Your task to perform on an android device: uninstall "McDonald's" Image 0: 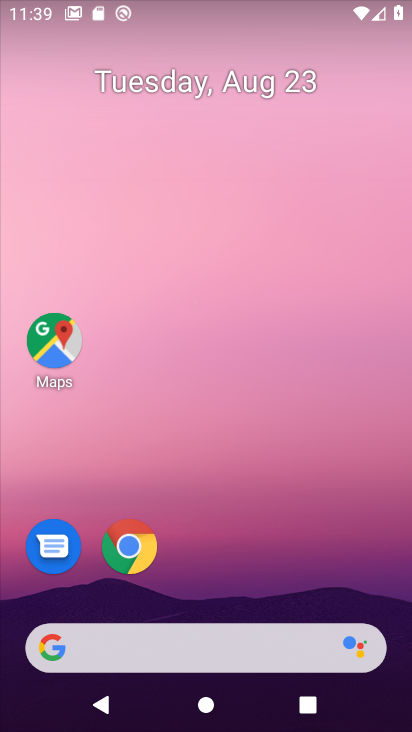
Step 0: drag from (251, 625) to (244, 217)
Your task to perform on an android device: uninstall "McDonald's" Image 1: 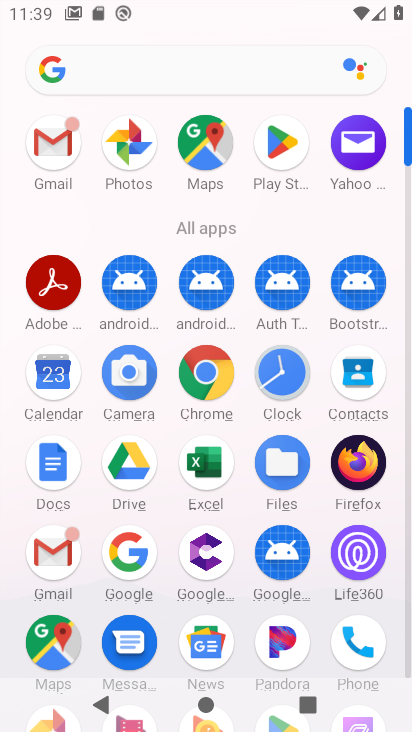
Step 1: click (272, 141)
Your task to perform on an android device: uninstall "McDonald's" Image 2: 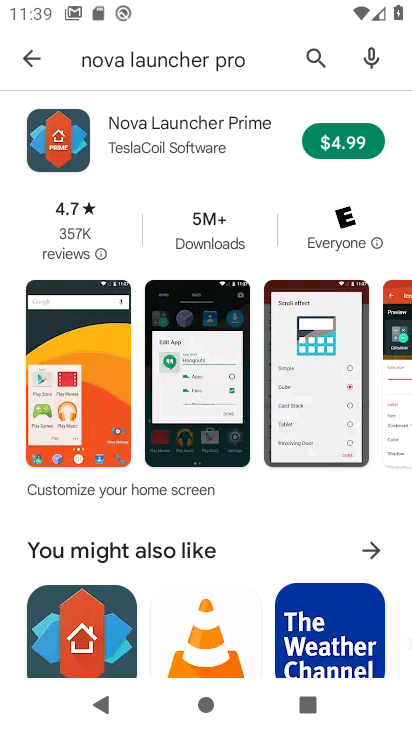
Step 2: click (36, 63)
Your task to perform on an android device: uninstall "McDonald's" Image 3: 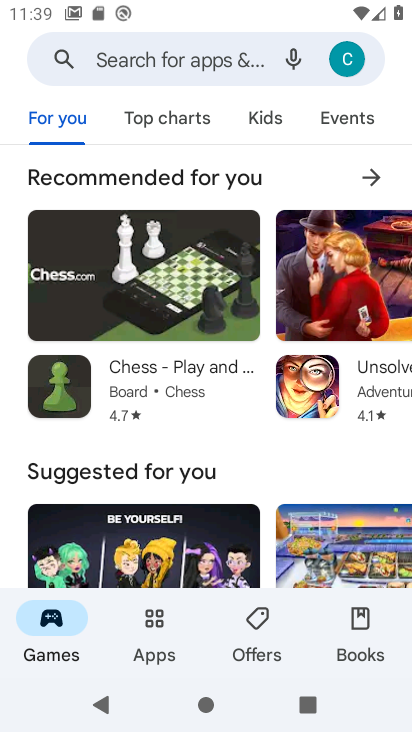
Step 3: click (196, 57)
Your task to perform on an android device: uninstall "McDonald's" Image 4: 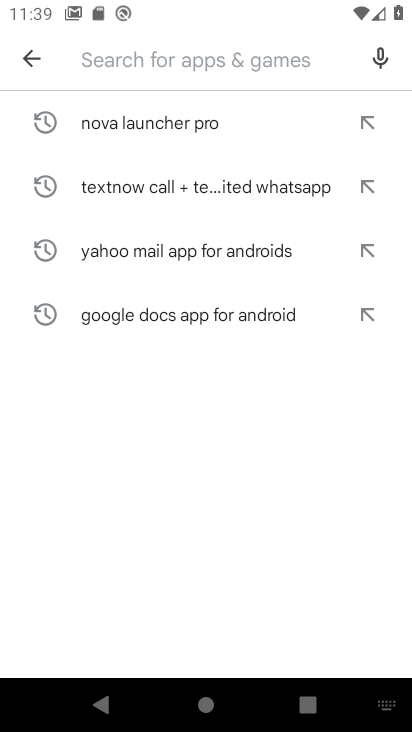
Step 4: type "McDonald's "
Your task to perform on an android device: uninstall "McDonald's" Image 5: 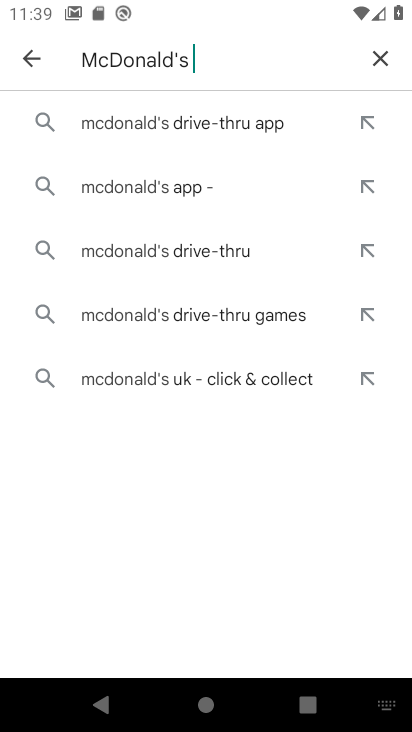
Step 5: click (144, 112)
Your task to perform on an android device: uninstall "McDonald's" Image 6: 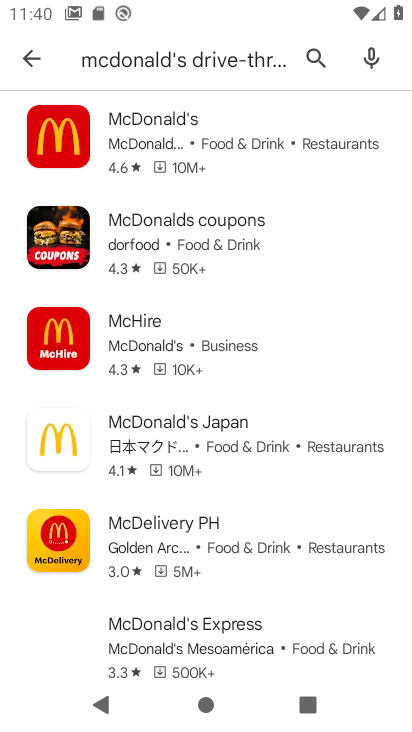
Step 6: click (169, 149)
Your task to perform on an android device: uninstall "McDonald's" Image 7: 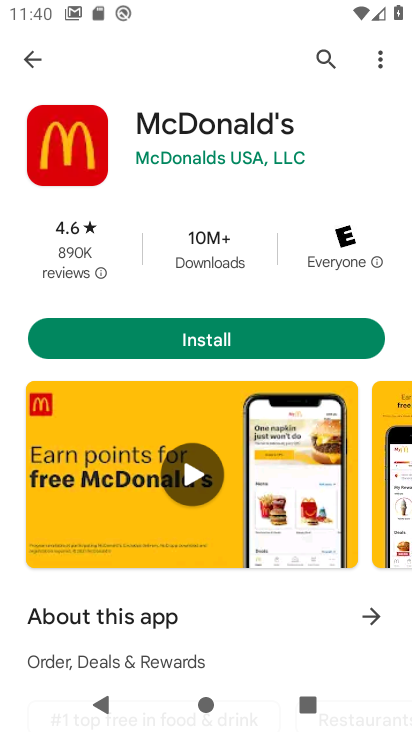
Step 7: click (203, 340)
Your task to perform on an android device: uninstall "McDonald's" Image 8: 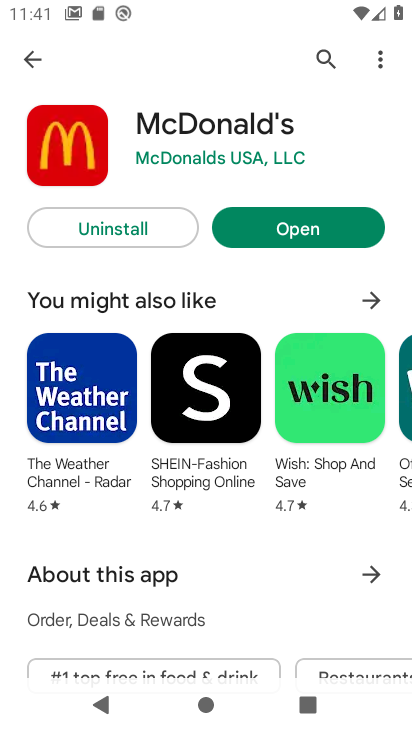
Step 8: click (122, 226)
Your task to perform on an android device: uninstall "McDonald's" Image 9: 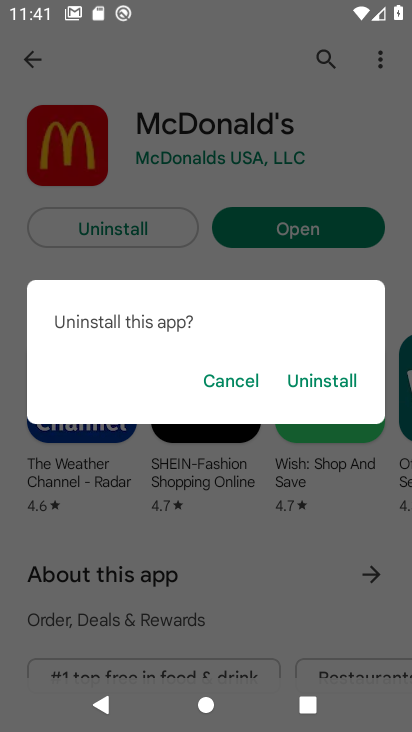
Step 9: click (328, 377)
Your task to perform on an android device: uninstall "McDonald's" Image 10: 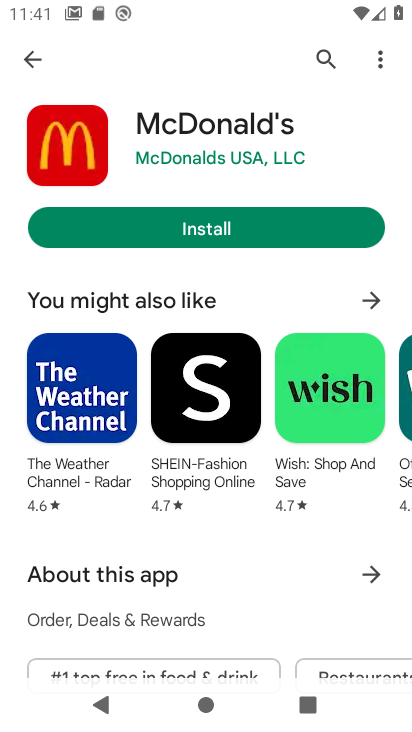
Step 10: task complete